Your task to perform on an android device: check data usage Image 0: 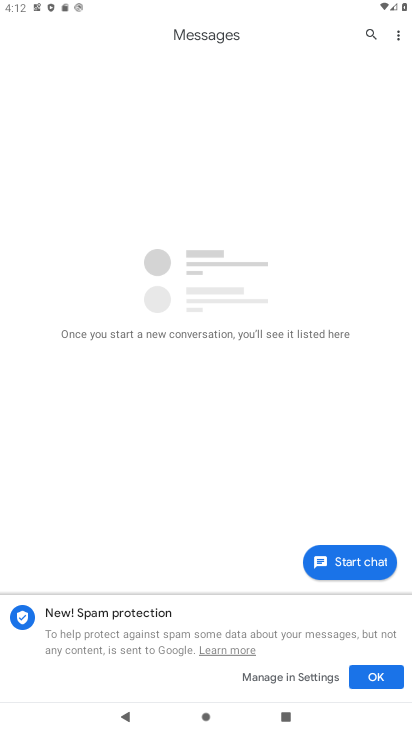
Step 0: press home button
Your task to perform on an android device: check data usage Image 1: 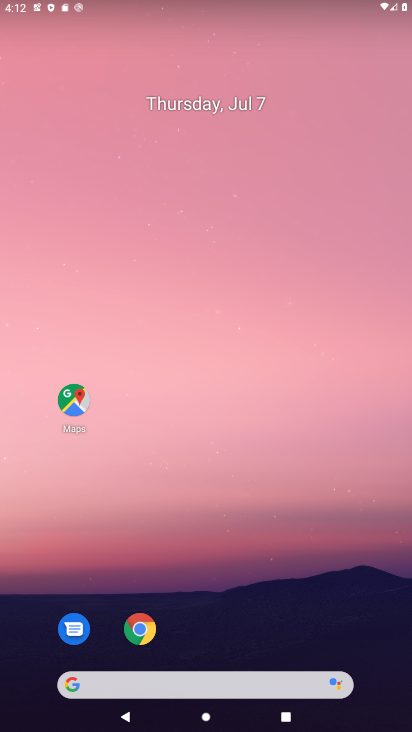
Step 1: drag from (226, 662) to (225, 293)
Your task to perform on an android device: check data usage Image 2: 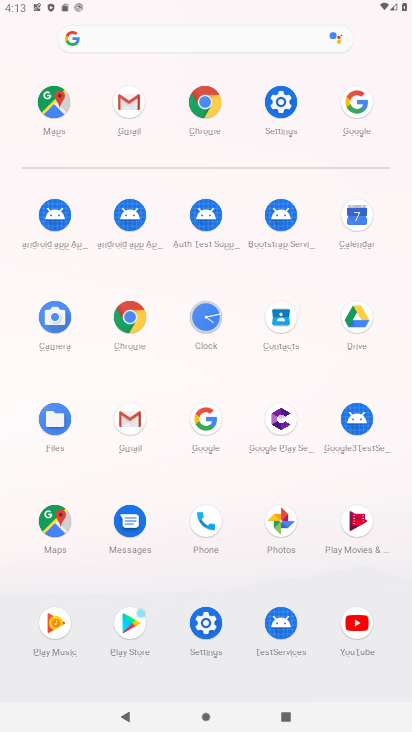
Step 2: click (271, 99)
Your task to perform on an android device: check data usage Image 3: 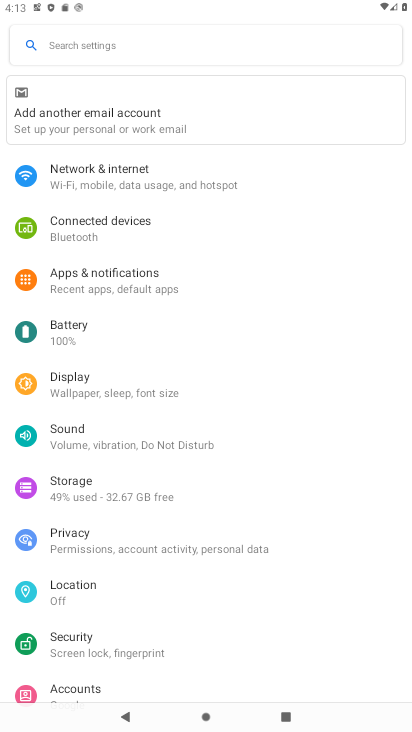
Step 3: click (121, 175)
Your task to perform on an android device: check data usage Image 4: 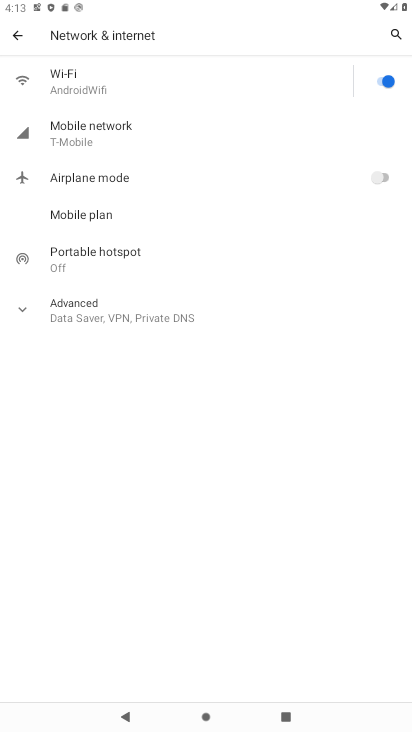
Step 4: click (109, 147)
Your task to perform on an android device: check data usage Image 5: 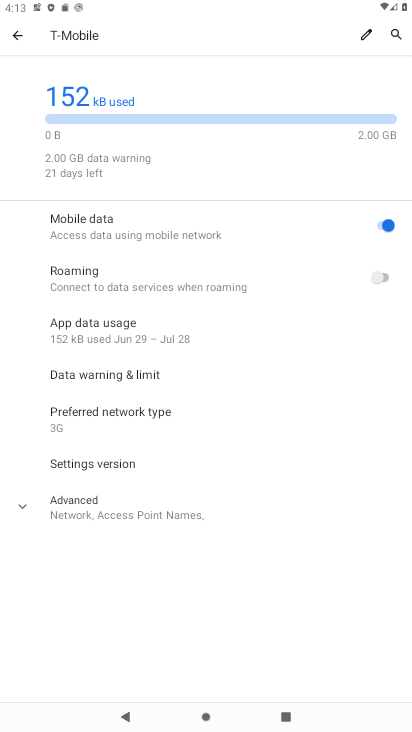
Step 5: click (119, 326)
Your task to perform on an android device: check data usage Image 6: 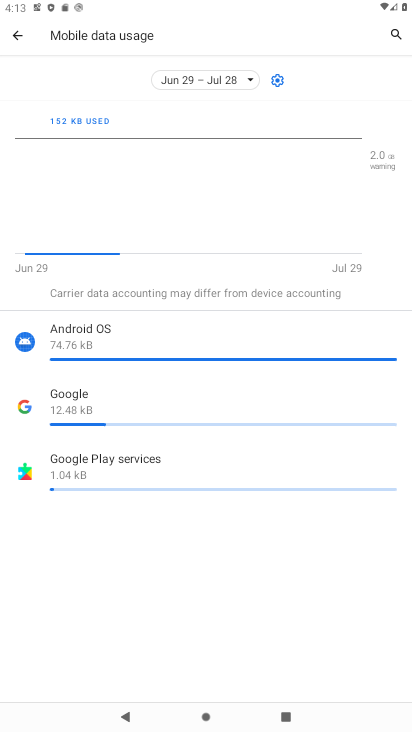
Step 6: task complete